Your task to perform on an android device: Add usb-c to usb-b to the cart on bestbuy.com, then select checkout. Image 0: 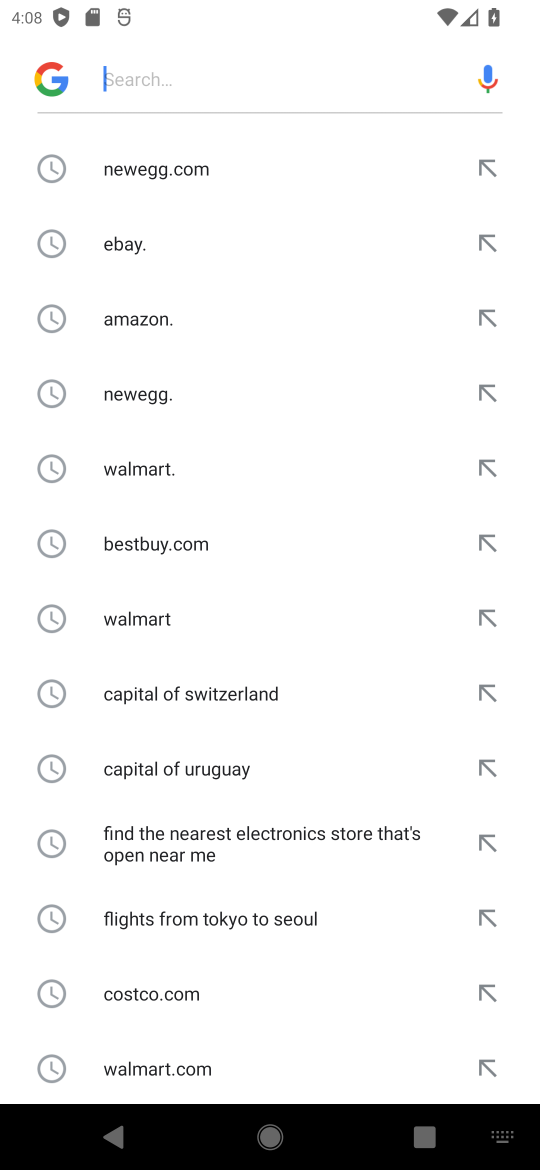
Step 0: press home button
Your task to perform on an android device: Add usb-c to usb-b to the cart on bestbuy.com, then select checkout. Image 1: 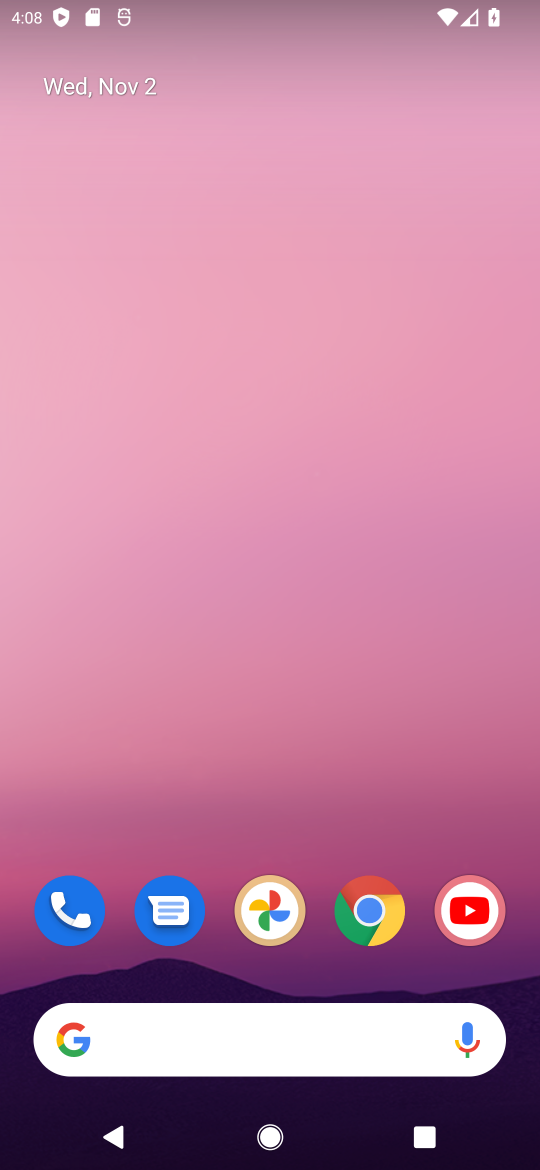
Step 1: click (369, 909)
Your task to perform on an android device: Add usb-c to usb-b to the cart on bestbuy.com, then select checkout. Image 2: 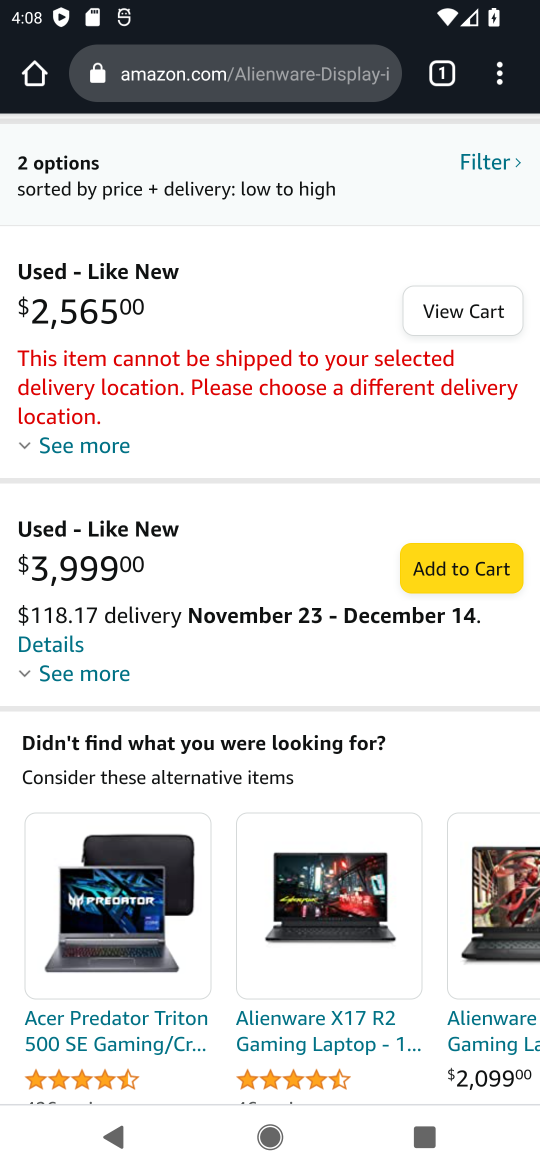
Step 2: click (316, 82)
Your task to perform on an android device: Add usb-c to usb-b to the cart on bestbuy.com, then select checkout. Image 3: 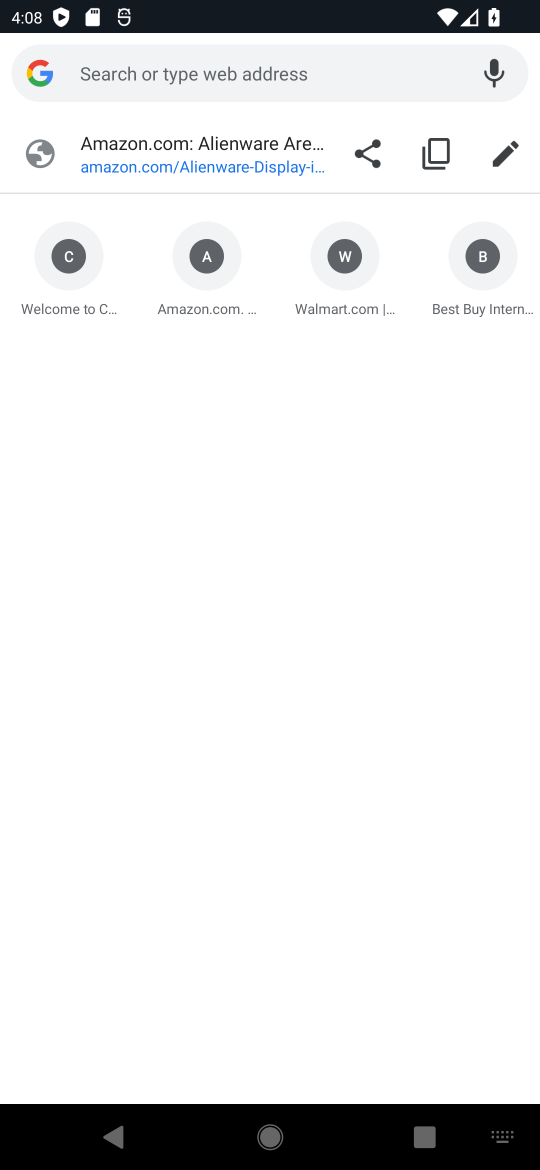
Step 3: type "bestbuy.com"
Your task to perform on an android device: Add usb-c to usb-b to the cart on bestbuy.com, then select checkout. Image 4: 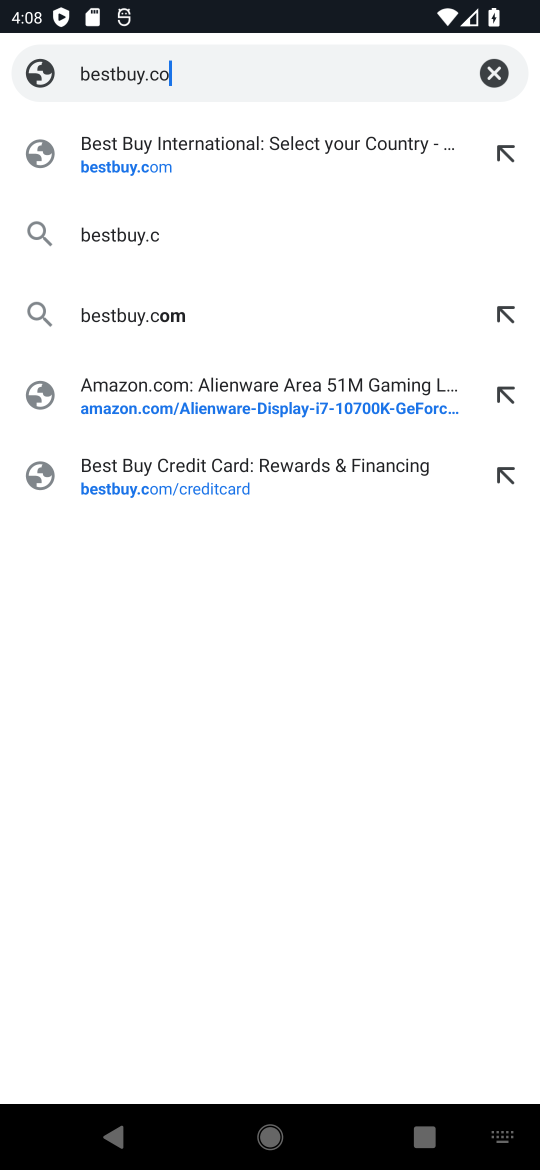
Step 4: type ""
Your task to perform on an android device: Add usb-c to usb-b to the cart on bestbuy.com, then select checkout. Image 5: 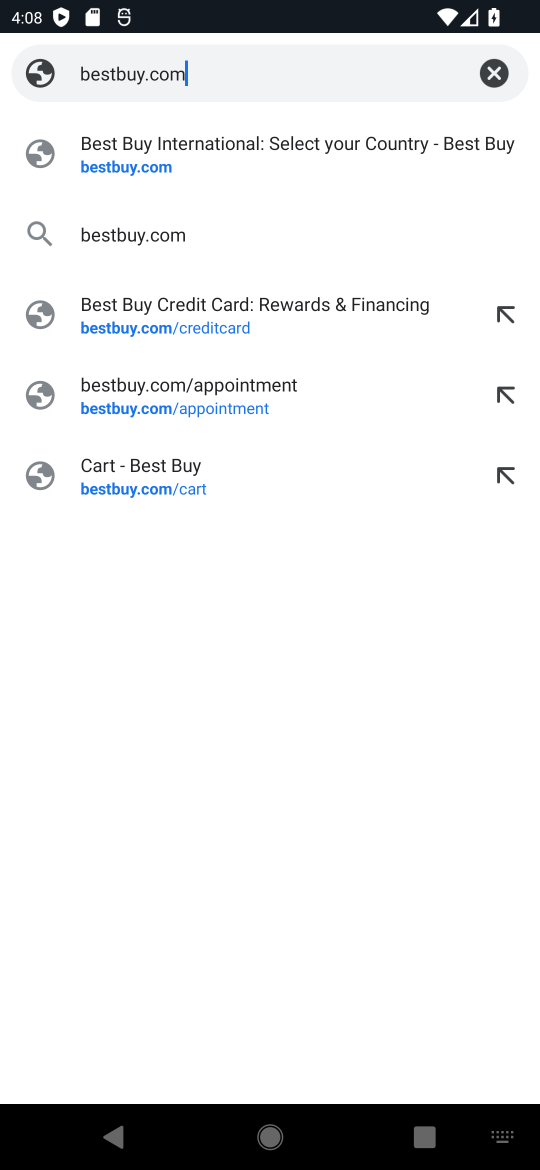
Step 5: click (130, 141)
Your task to perform on an android device: Add usb-c to usb-b to the cart on bestbuy.com, then select checkout. Image 6: 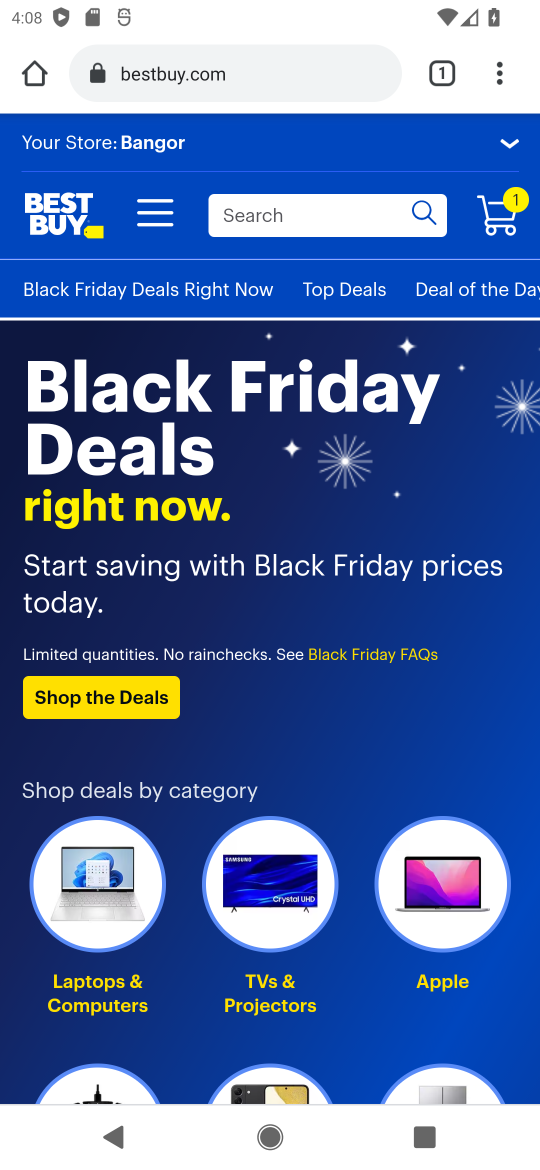
Step 6: click (292, 235)
Your task to perform on an android device: Add usb-c to usb-b to the cart on bestbuy.com, then select checkout. Image 7: 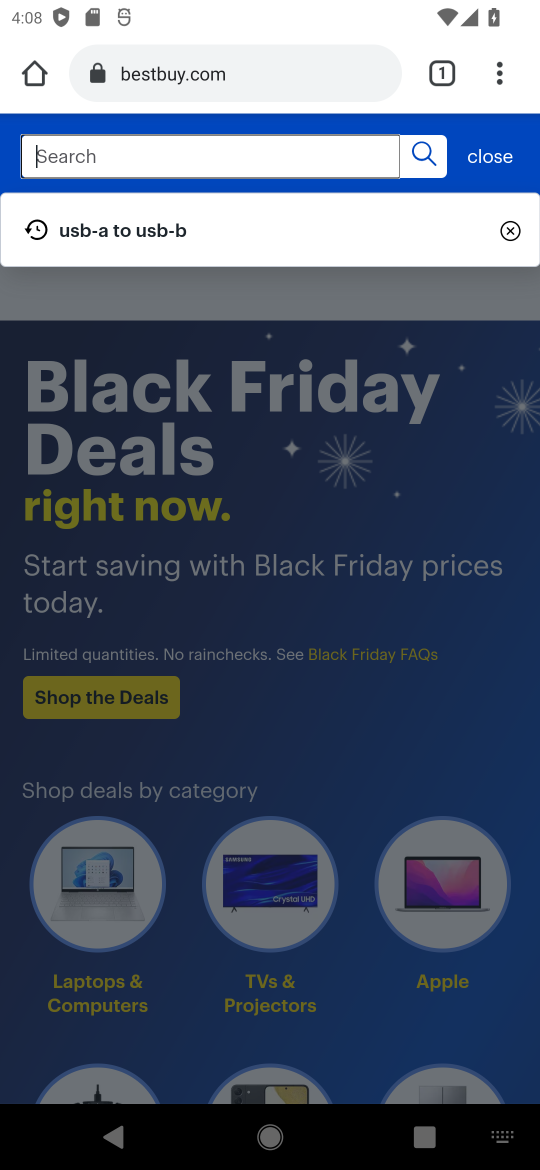
Step 7: type "usb-c to usb-b"
Your task to perform on an android device: Add usb-c to usb-b to the cart on bestbuy.com, then select checkout. Image 8: 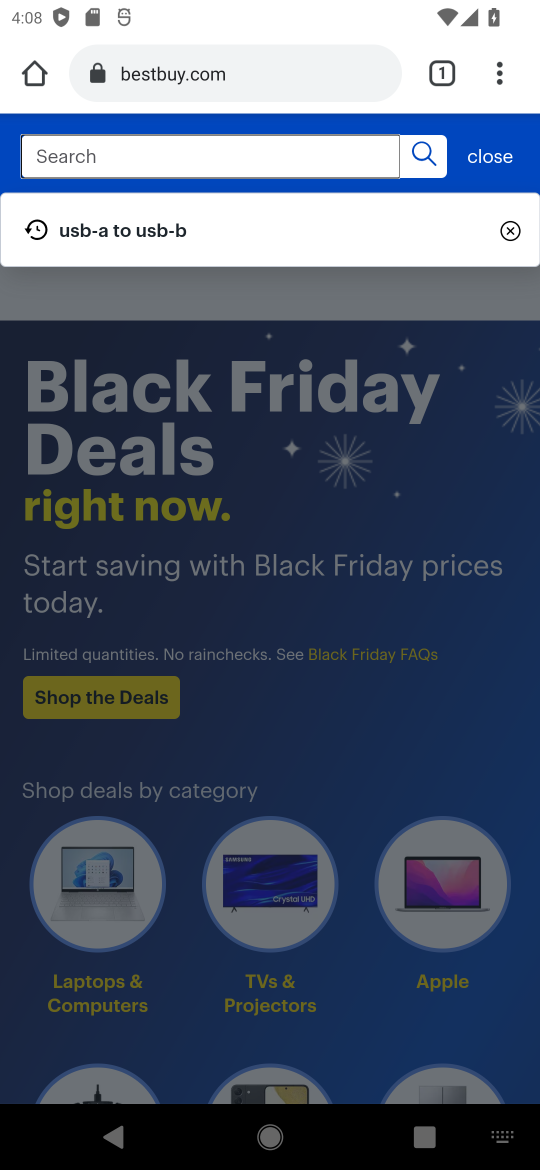
Step 8: type ""
Your task to perform on an android device: Add usb-c to usb-b to the cart on bestbuy.com, then select checkout. Image 9: 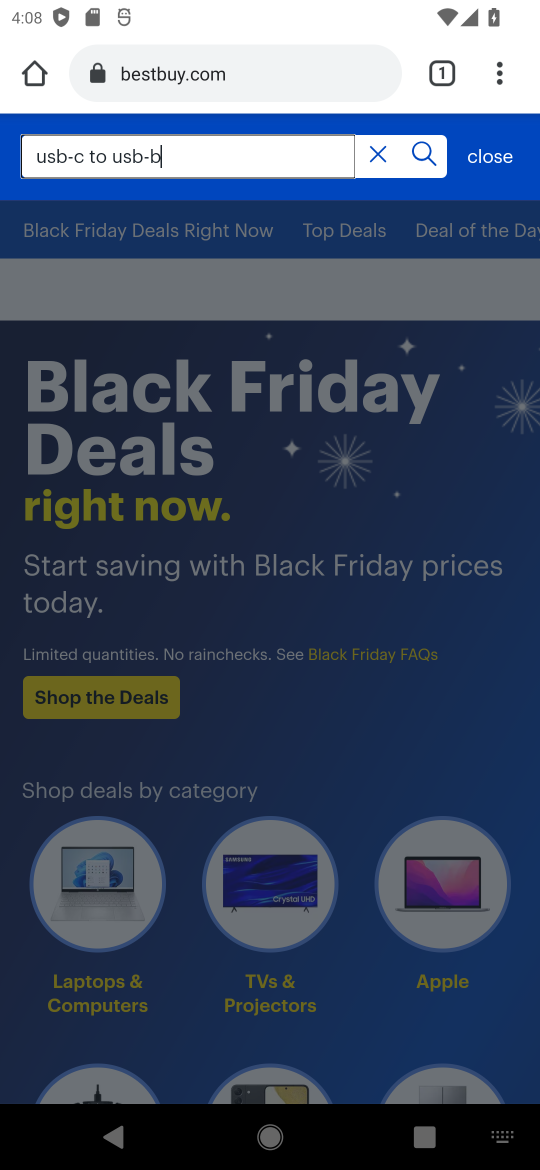
Step 9: click (424, 143)
Your task to perform on an android device: Add usb-c to usb-b to the cart on bestbuy.com, then select checkout. Image 10: 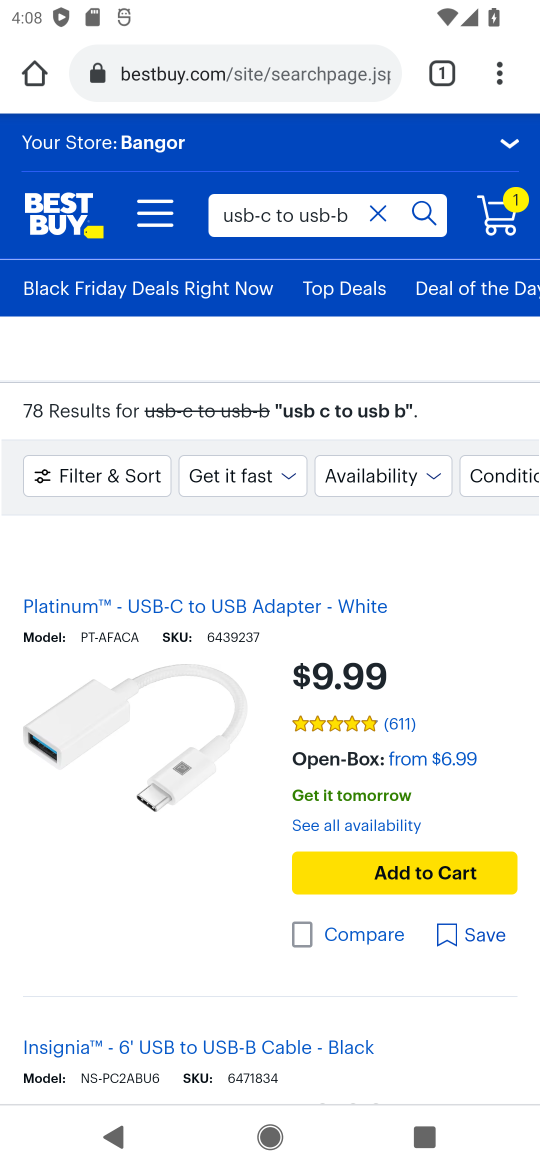
Step 10: click (448, 858)
Your task to perform on an android device: Add usb-c to usb-b to the cart on bestbuy.com, then select checkout. Image 11: 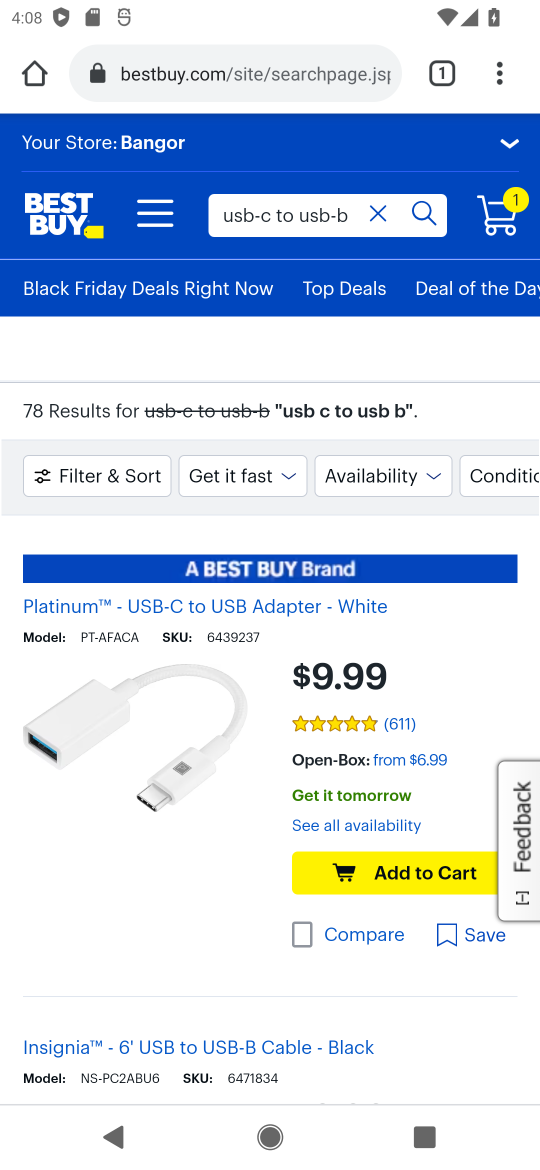
Step 11: click (487, 209)
Your task to perform on an android device: Add usb-c to usb-b to the cart on bestbuy.com, then select checkout. Image 12: 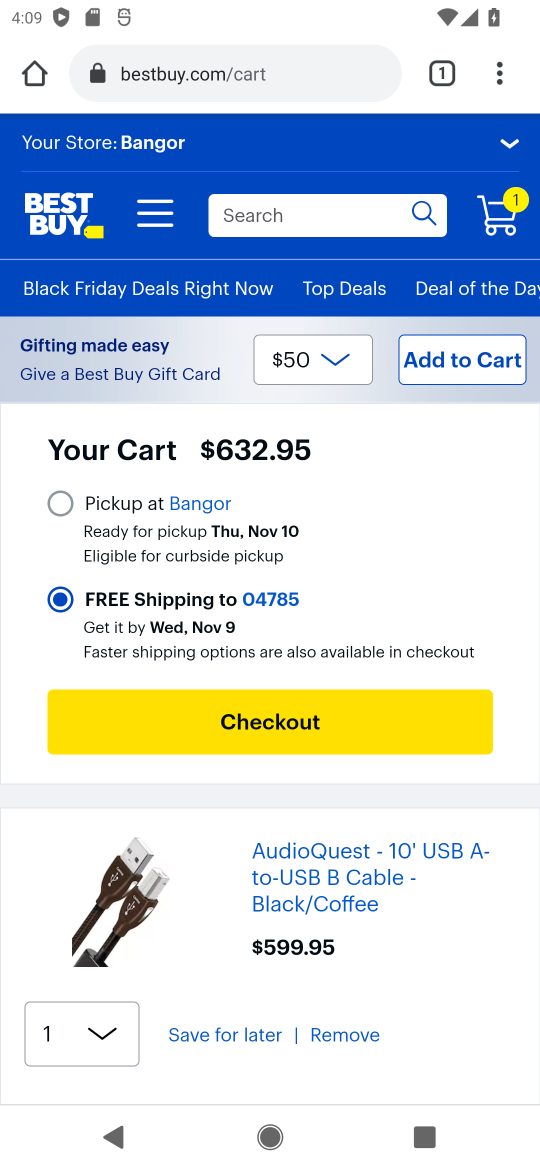
Step 12: drag from (338, 900) to (368, 521)
Your task to perform on an android device: Add usb-c to usb-b to the cart on bestbuy.com, then select checkout. Image 13: 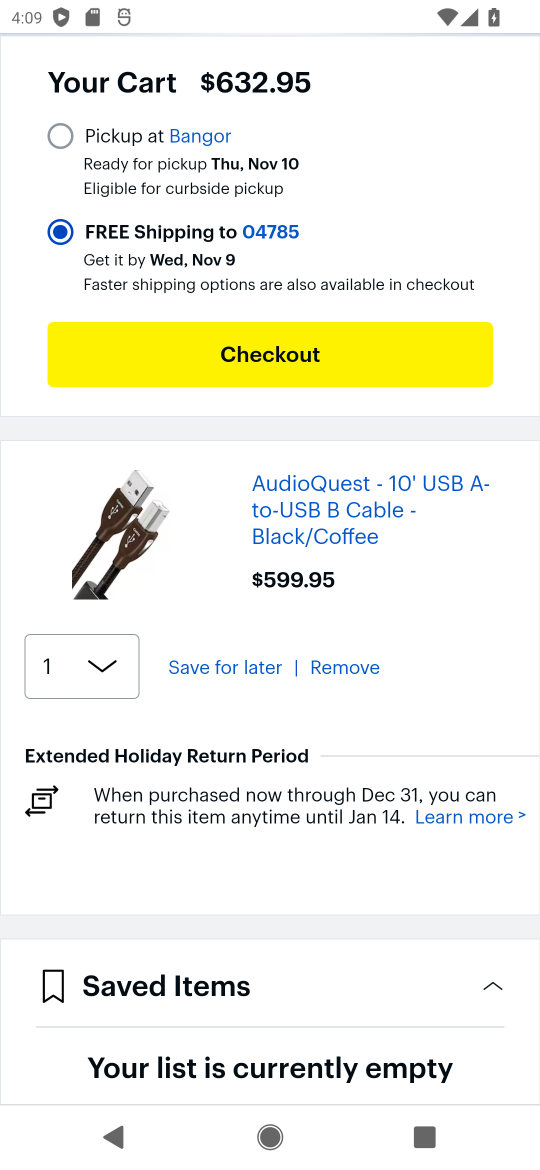
Step 13: click (337, 658)
Your task to perform on an android device: Add usb-c to usb-b to the cart on bestbuy.com, then select checkout. Image 14: 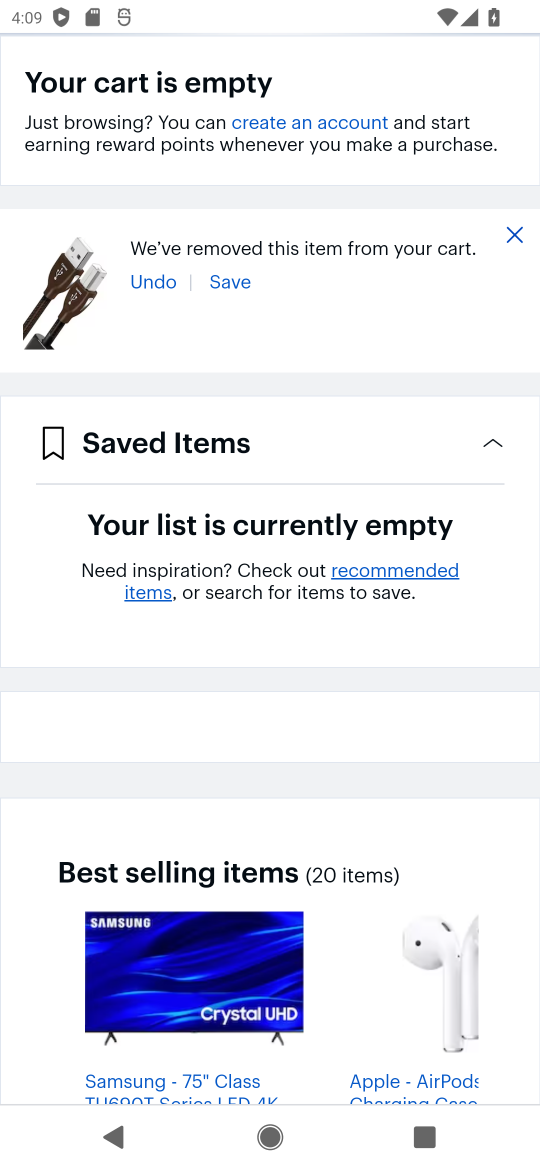
Step 14: click (519, 243)
Your task to perform on an android device: Add usb-c to usb-b to the cart on bestbuy.com, then select checkout. Image 15: 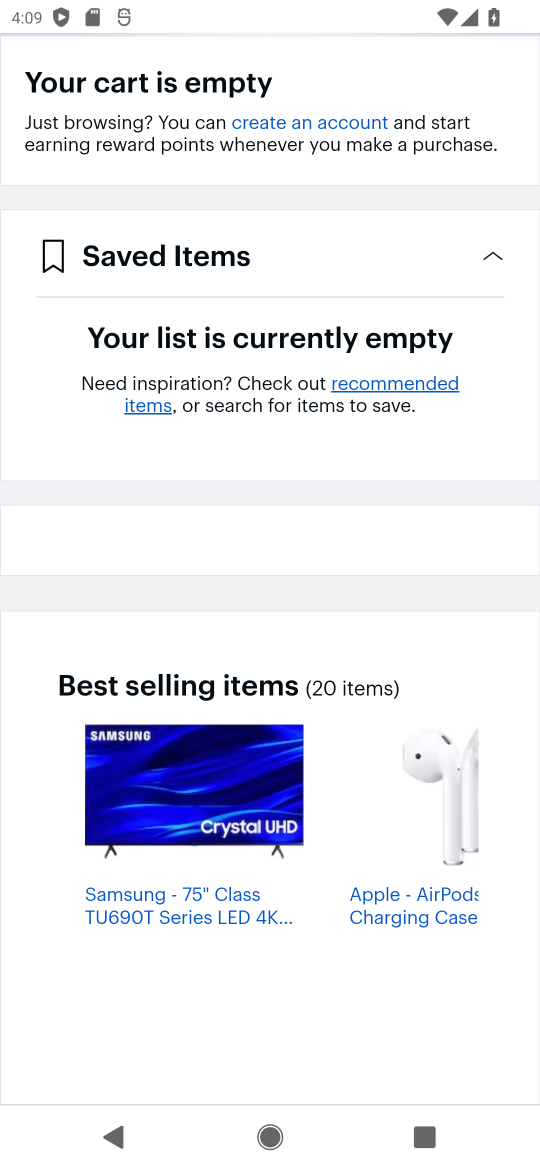
Step 15: drag from (353, 211) to (290, 944)
Your task to perform on an android device: Add usb-c to usb-b to the cart on bestbuy.com, then select checkout. Image 16: 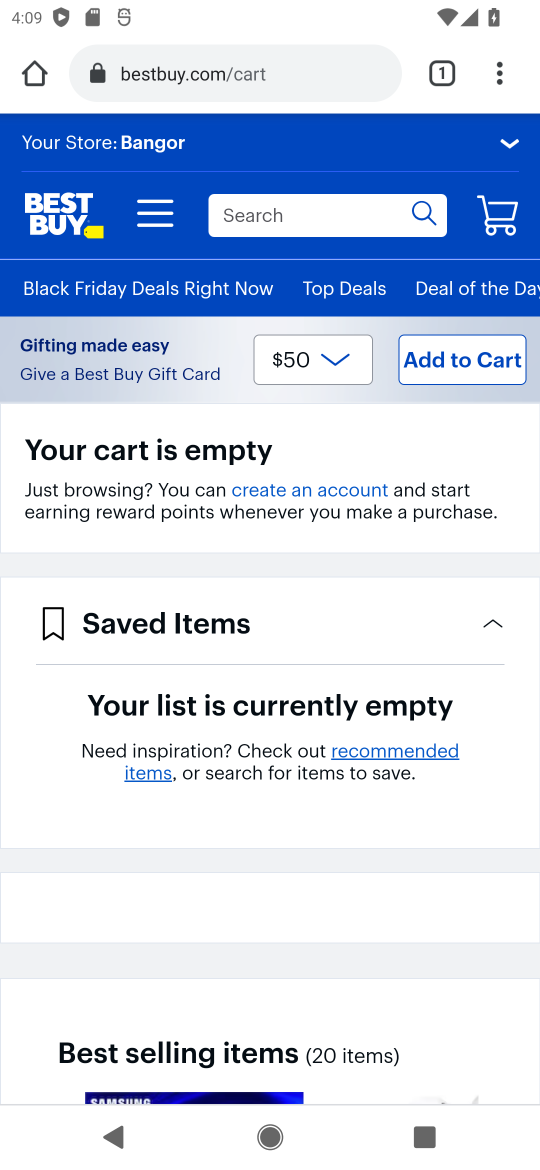
Step 16: click (280, 202)
Your task to perform on an android device: Add usb-c to usb-b to the cart on bestbuy.com, then select checkout. Image 17: 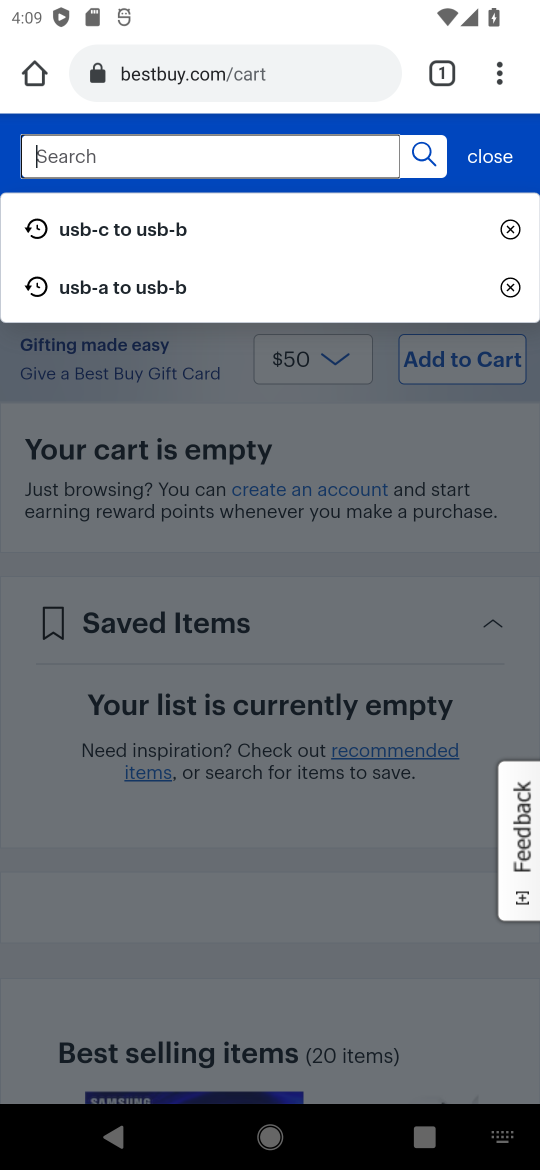
Step 17: type "usb-c to usb-b"
Your task to perform on an android device: Add usb-c to usb-b to the cart on bestbuy.com, then select checkout. Image 18: 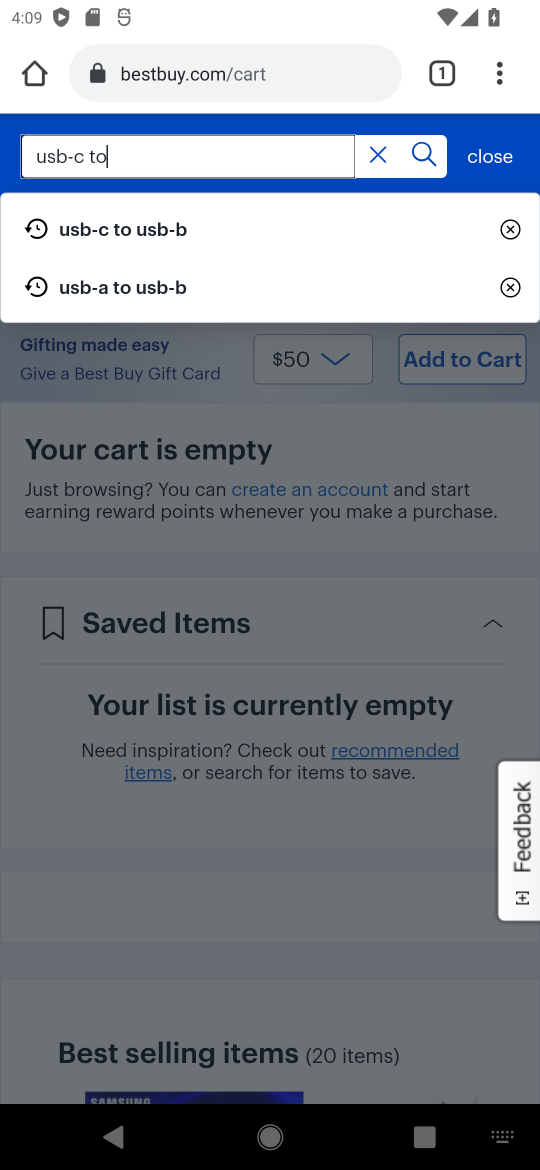
Step 18: type ""
Your task to perform on an android device: Add usb-c to usb-b to the cart on bestbuy.com, then select checkout. Image 19: 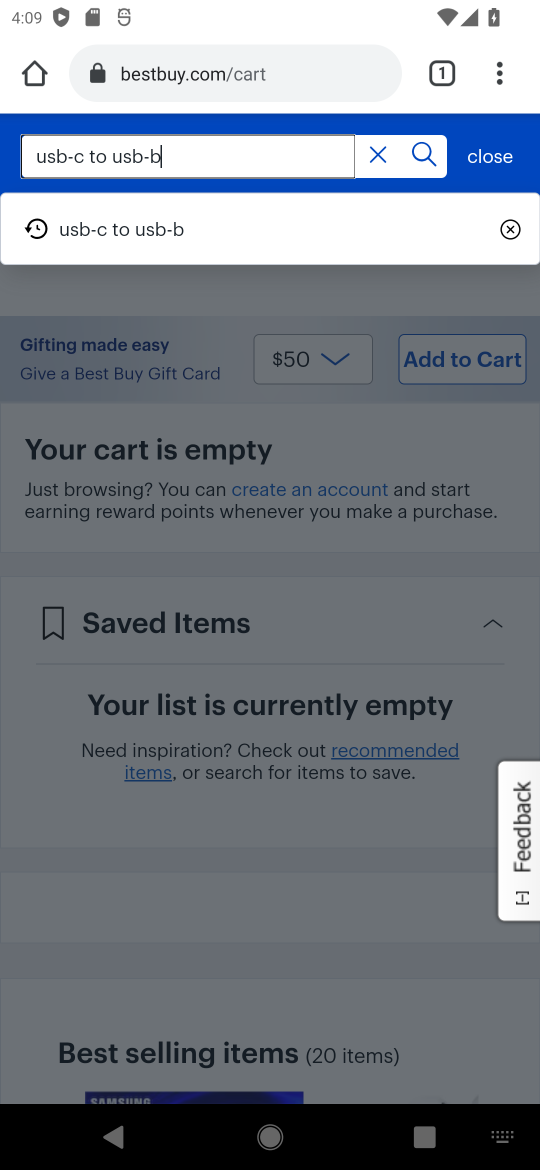
Step 19: click (167, 222)
Your task to perform on an android device: Add usb-c to usb-b to the cart on bestbuy.com, then select checkout. Image 20: 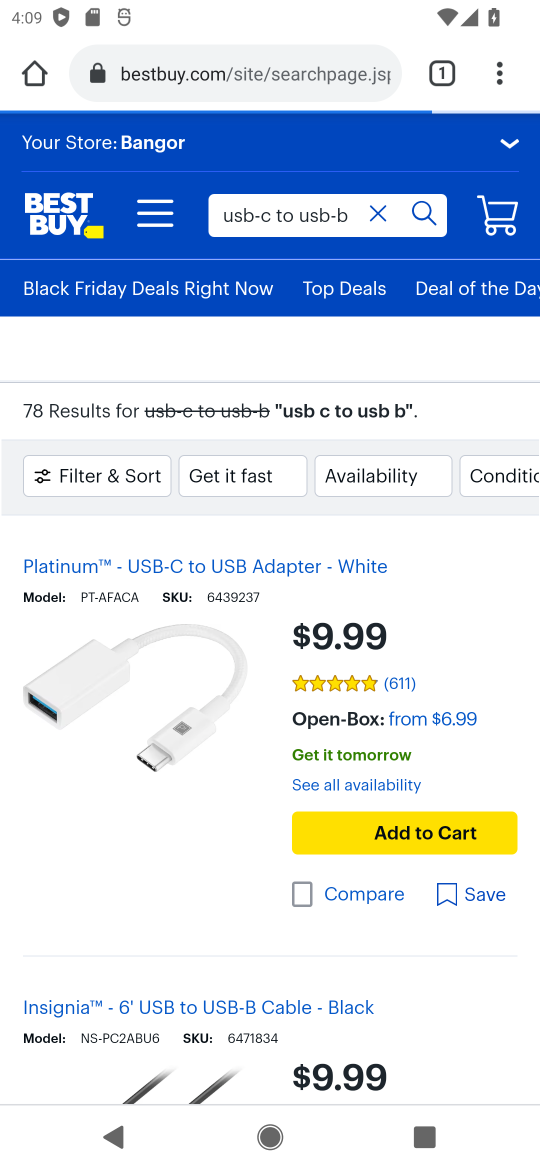
Step 20: click (192, 696)
Your task to perform on an android device: Add usb-c to usb-b to the cart on bestbuy.com, then select checkout. Image 21: 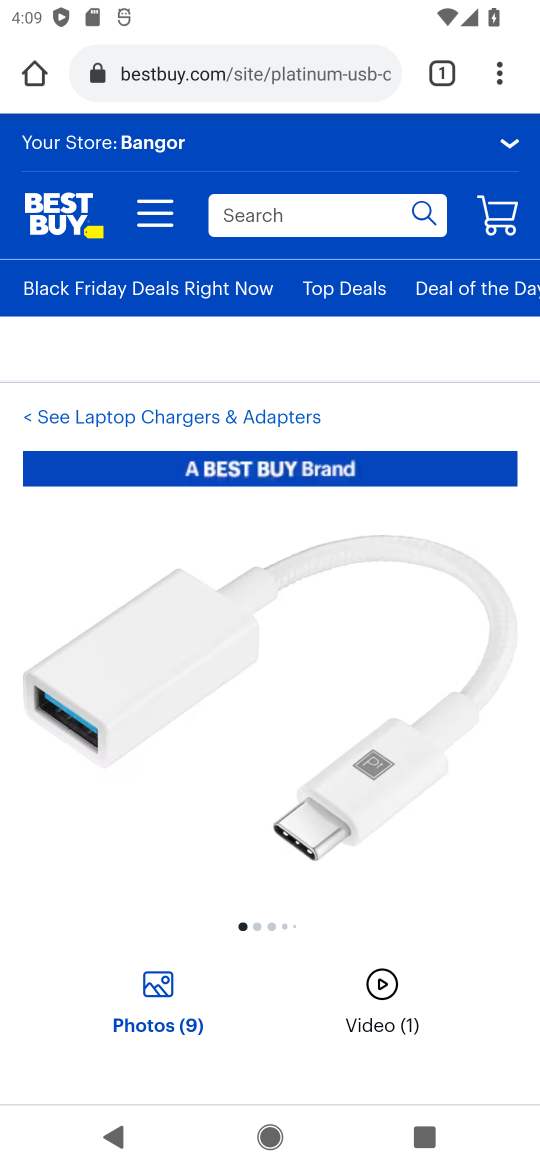
Step 21: drag from (385, 748) to (385, 553)
Your task to perform on an android device: Add usb-c to usb-b to the cart on bestbuy.com, then select checkout. Image 22: 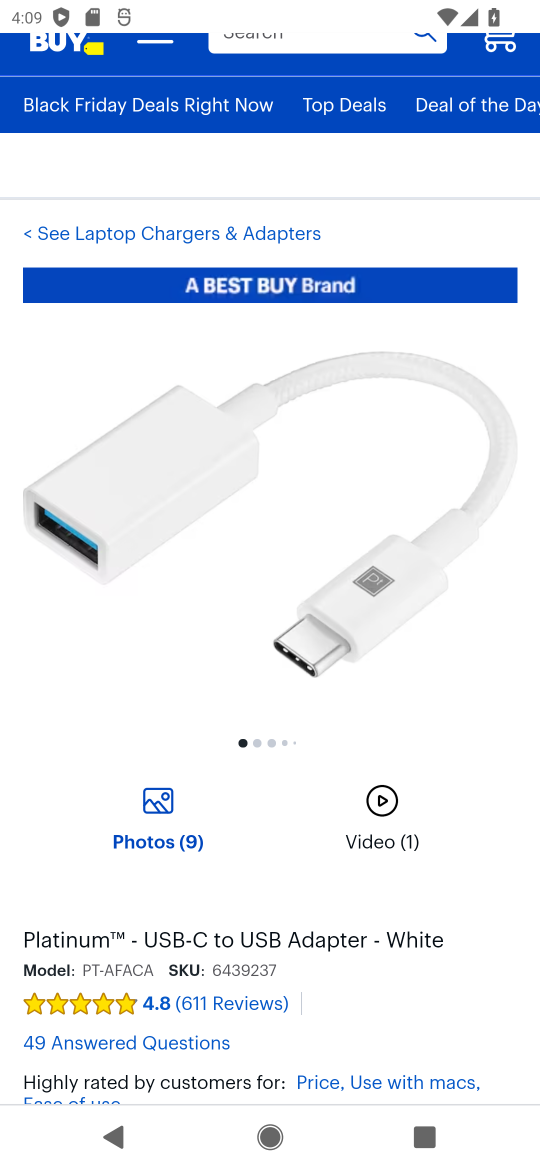
Step 22: drag from (343, 923) to (366, 537)
Your task to perform on an android device: Add usb-c to usb-b to the cart on bestbuy.com, then select checkout. Image 23: 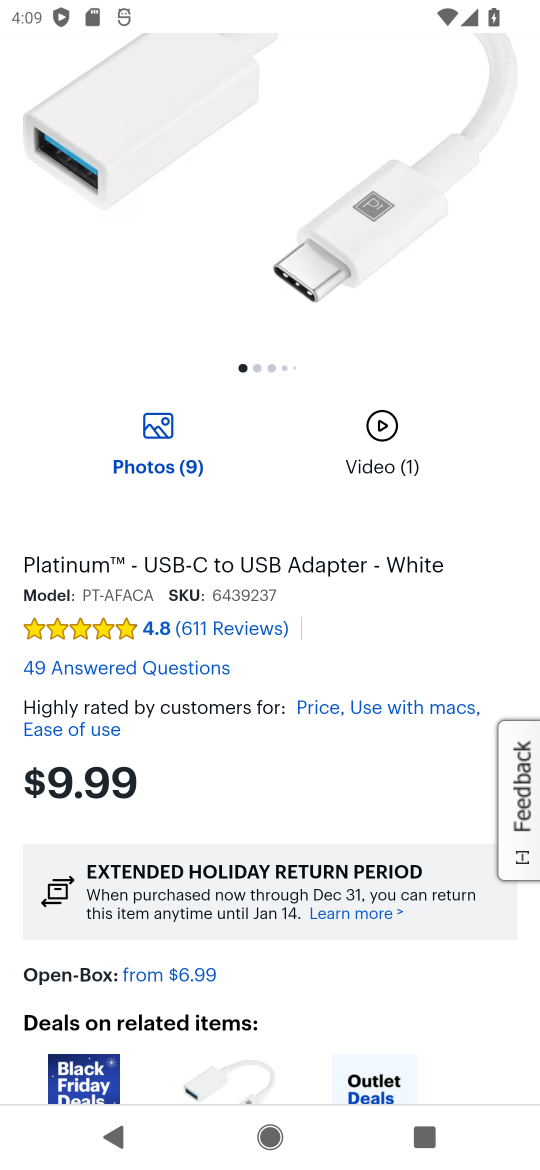
Step 23: drag from (327, 691) to (346, 474)
Your task to perform on an android device: Add usb-c to usb-b to the cart on bestbuy.com, then select checkout. Image 24: 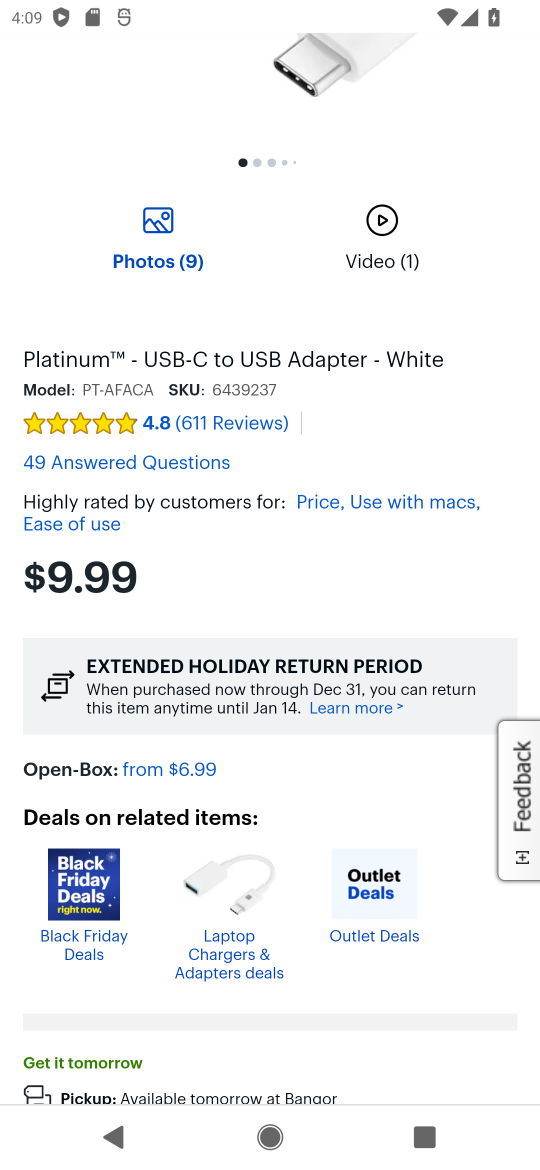
Step 24: drag from (270, 693) to (301, 448)
Your task to perform on an android device: Add usb-c to usb-b to the cart on bestbuy.com, then select checkout. Image 25: 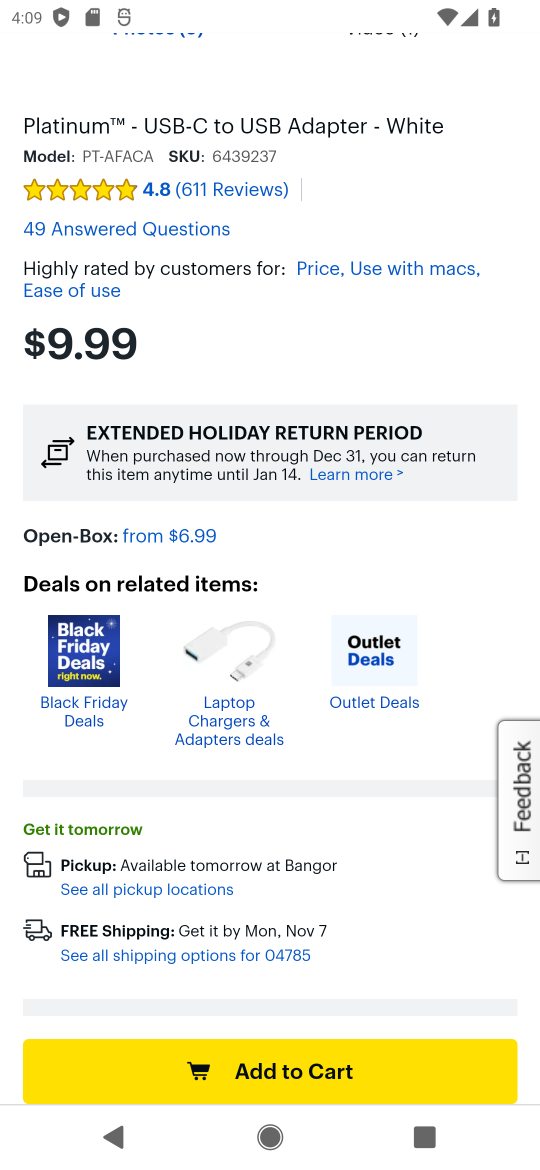
Step 25: click (289, 1034)
Your task to perform on an android device: Add usb-c to usb-b to the cart on bestbuy.com, then select checkout. Image 26: 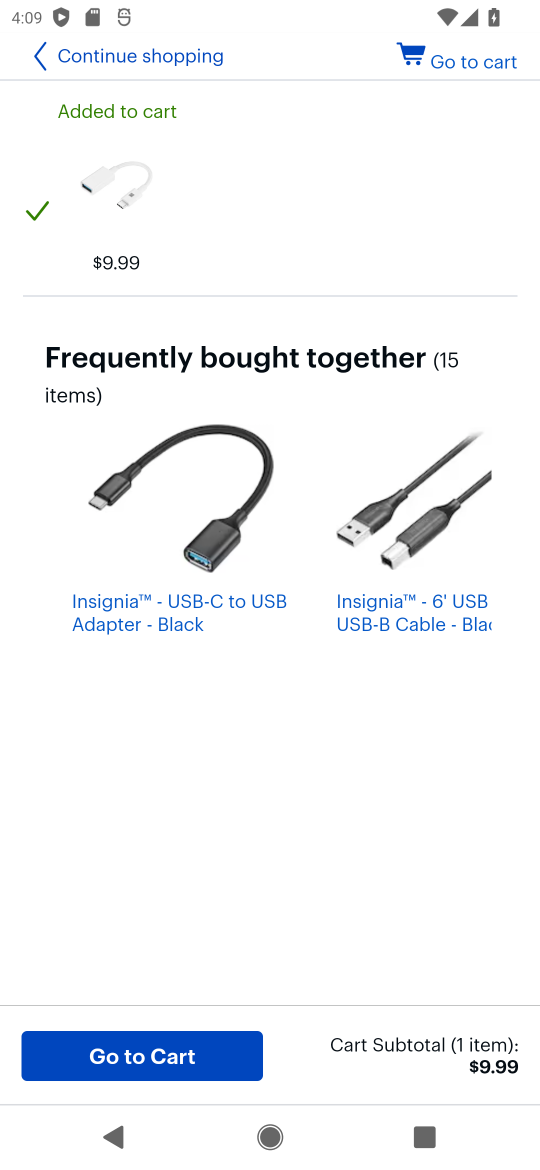
Step 26: click (172, 1037)
Your task to perform on an android device: Add usb-c to usb-b to the cart on bestbuy.com, then select checkout. Image 27: 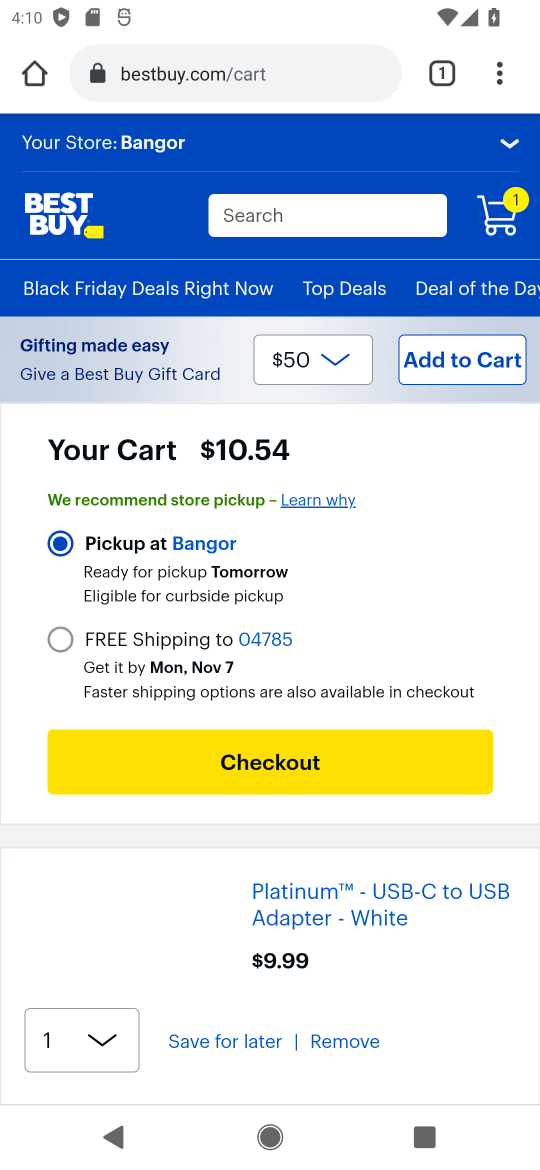
Step 27: click (499, 215)
Your task to perform on an android device: Add usb-c to usb-b to the cart on bestbuy.com, then select checkout. Image 28: 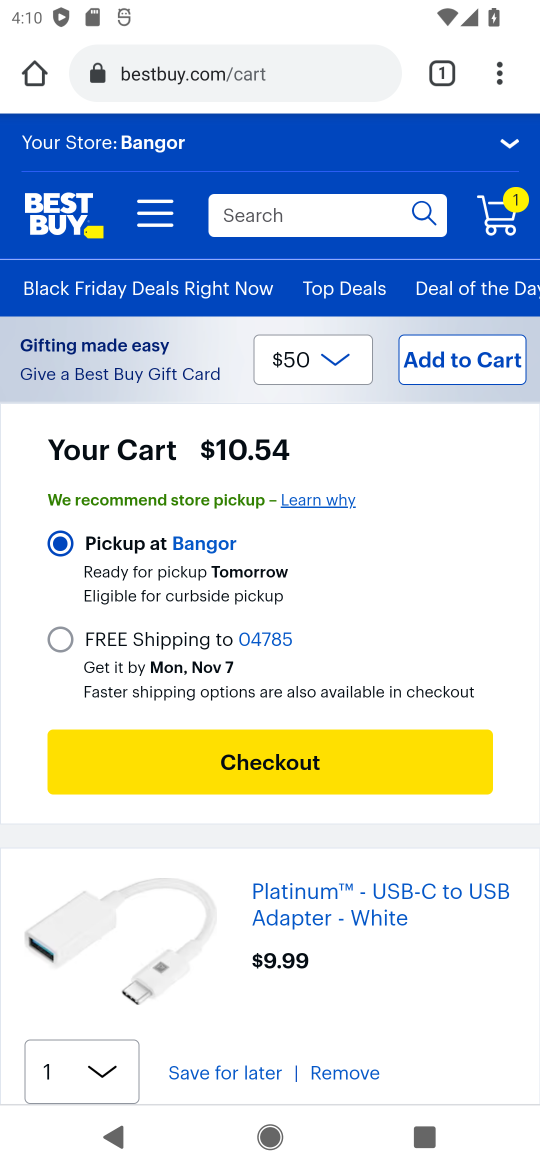
Step 28: click (343, 773)
Your task to perform on an android device: Add usb-c to usb-b to the cart on bestbuy.com, then select checkout. Image 29: 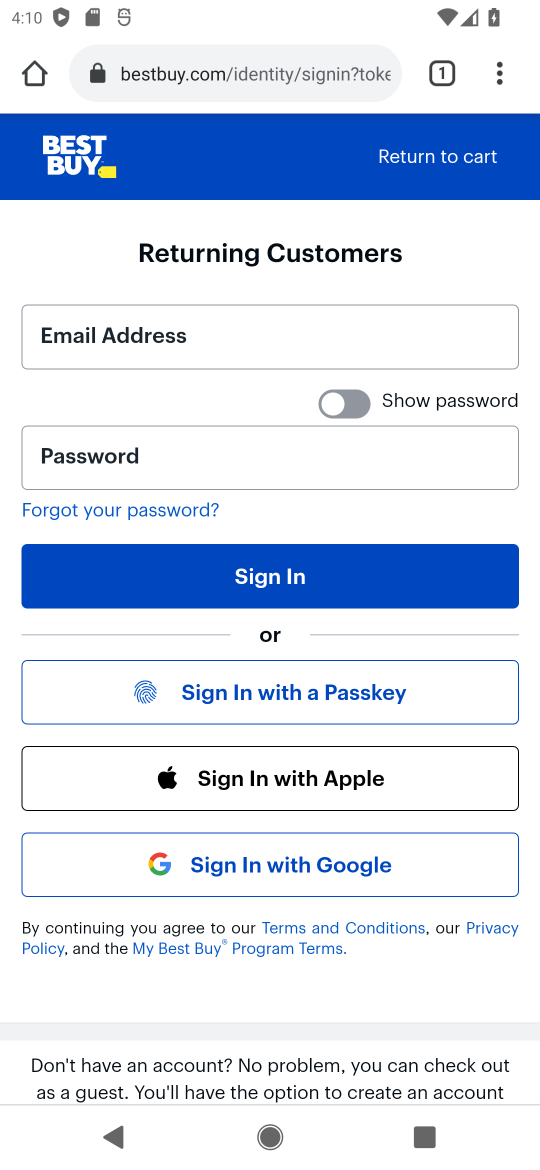
Step 29: click (430, 165)
Your task to perform on an android device: Add usb-c to usb-b to the cart on bestbuy.com, then select checkout. Image 30: 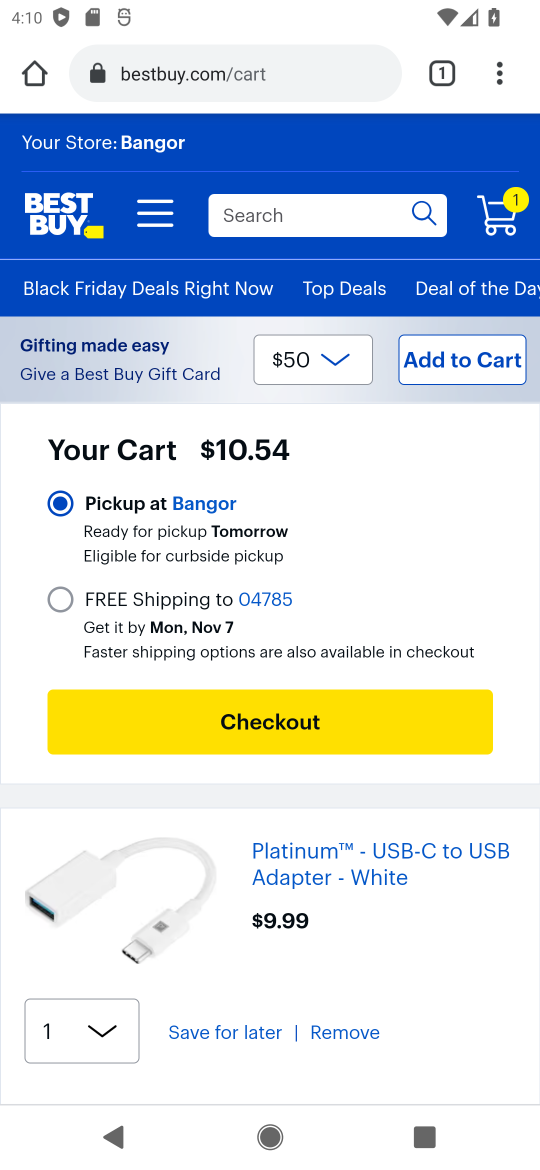
Step 30: click (510, 208)
Your task to perform on an android device: Add usb-c to usb-b to the cart on bestbuy.com, then select checkout. Image 31: 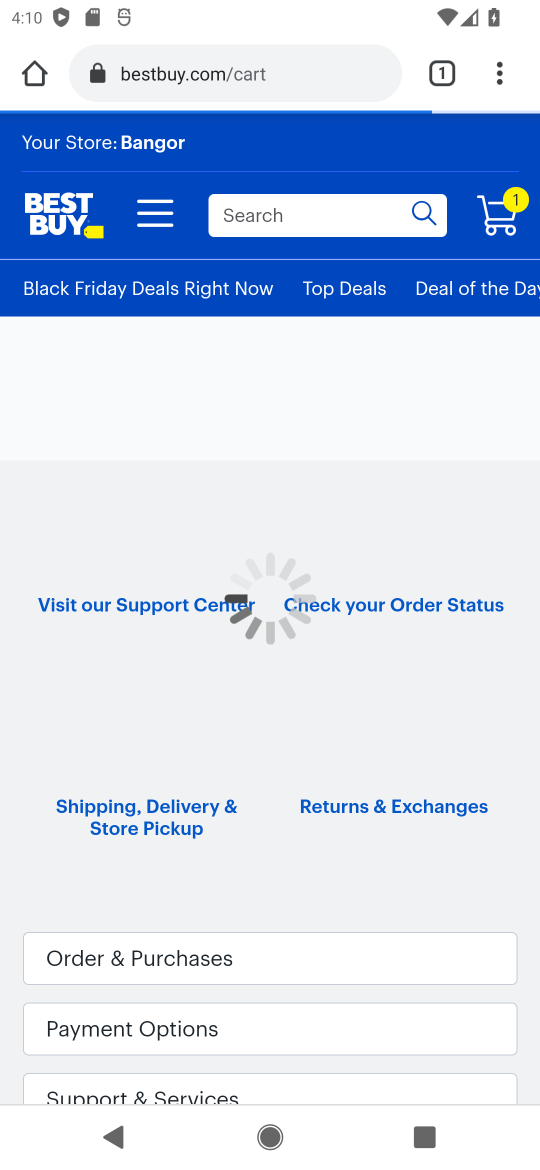
Step 31: task complete